Your task to perform on an android device: Turn off the flashlight Image 0: 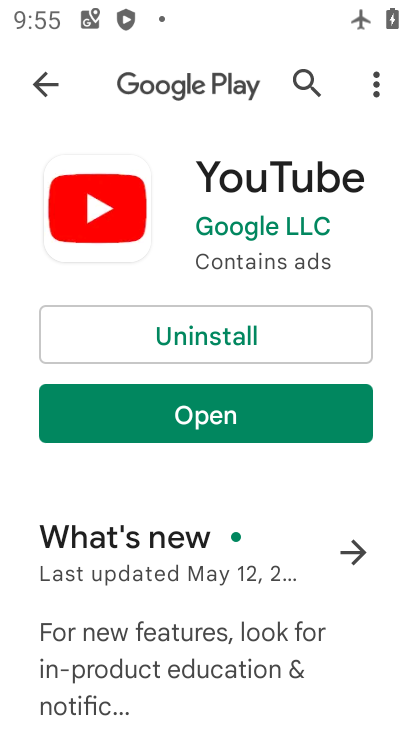
Step 0: press home button
Your task to perform on an android device: Turn off the flashlight Image 1: 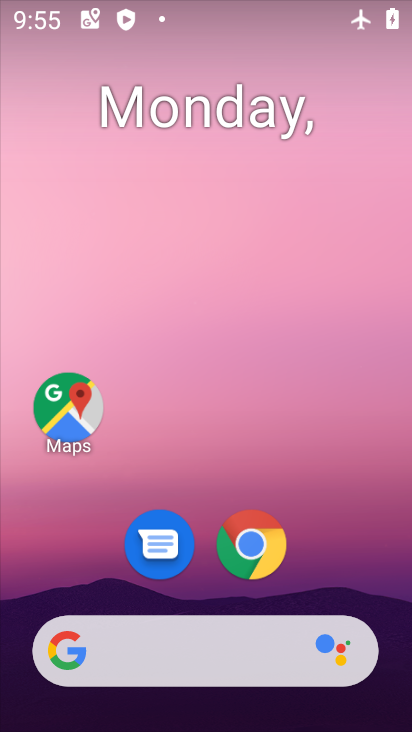
Step 1: drag from (307, 556) to (198, 0)
Your task to perform on an android device: Turn off the flashlight Image 2: 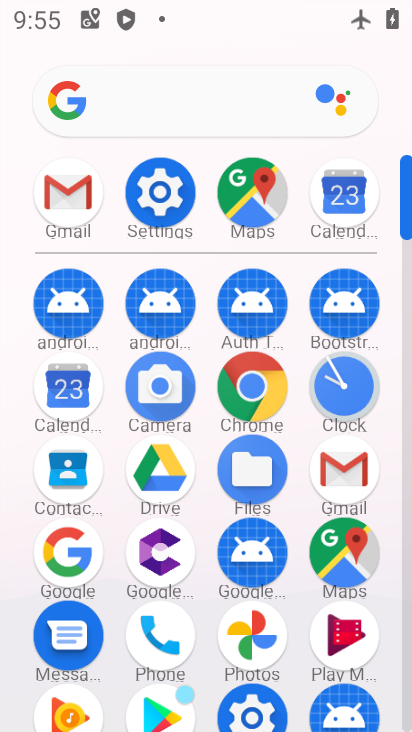
Step 2: click (160, 198)
Your task to perform on an android device: Turn off the flashlight Image 3: 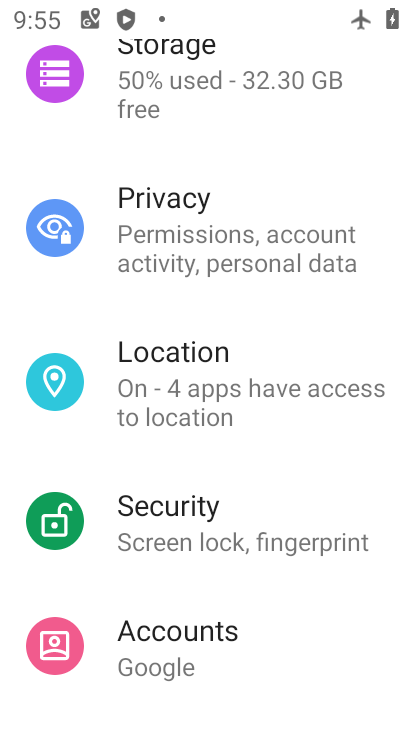
Step 3: drag from (265, 173) to (271, 641)
Your task to perform on an android device: Turn off the flashlight Image 4: 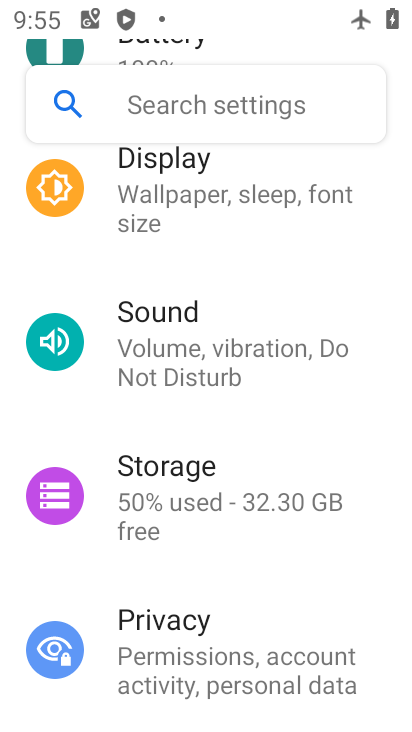
Step 4: drag from (192, 264) to (210, 664)
Your task to perform on an android device: Turn off the flashlight Image 5: 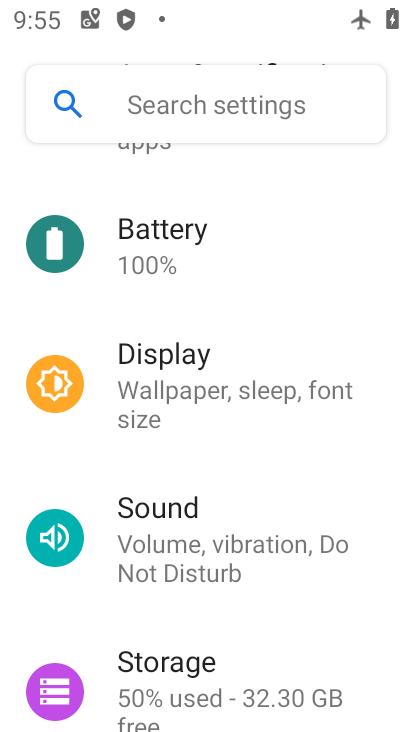
Step 5: drag from (203, 307) to (207, 706)
Your task to perform on an android device: Turn off the flashlight Image 6: 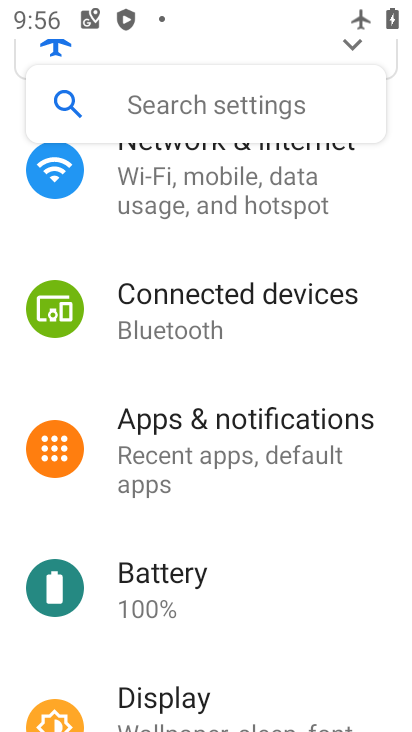
Step 6: drag from (201, 234) to (223, 720)
Your task to perform on an android device: Turn off the flashlight Image 7: 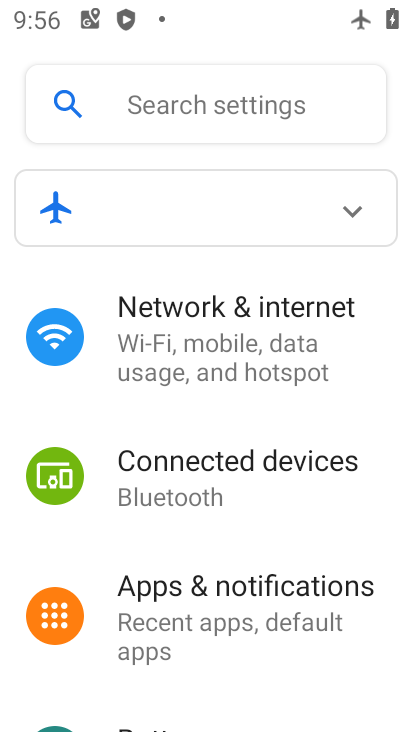
Step 7: drag from (211, 539) to (166, 181)
Your task to perform on an android device: Turn off the flashlight Image 8: 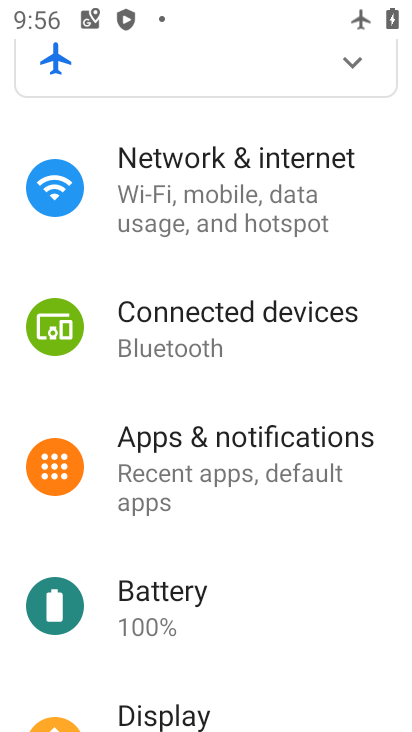
Step 8: click (224, 147)
Your task to perform on an android device: Turn off the flashlight Image 9: 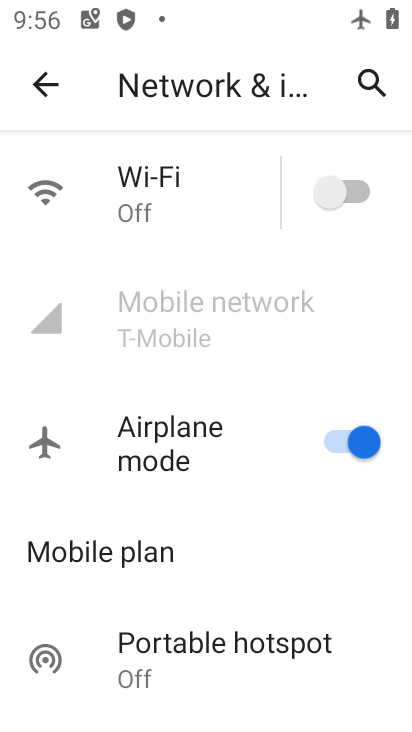
Step 9: task complete